Your task to perform on an android device: refresh tabs in the chrome app Image 0: 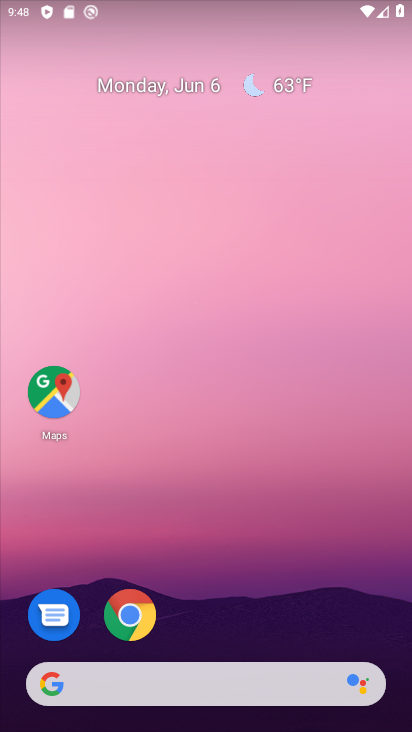
Step 0: click (132, 610)
Your task to perform on an android device: refresh tabs in the chrome app Image 1: 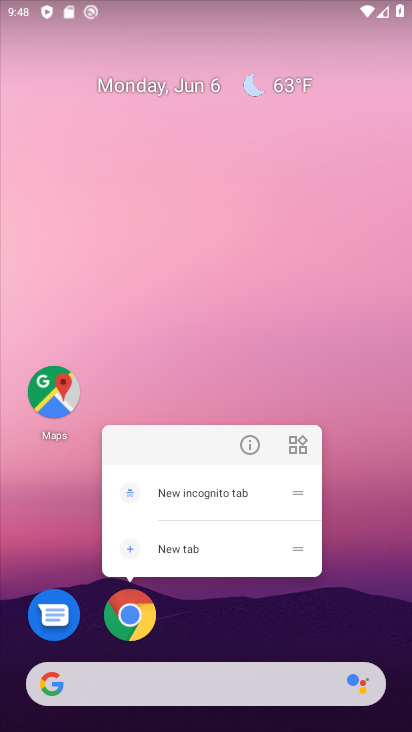
Step 1: click (128, 611)
Your task to perform on an android device: refresh tabs in the chrome app Image 2: 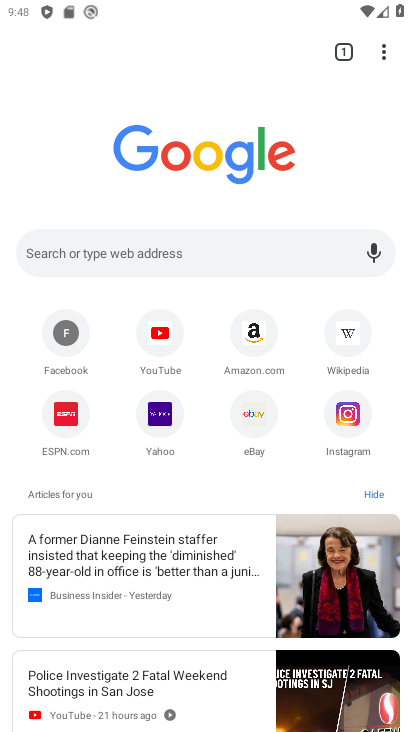
Step 2: click (382, 49)
Your task to perform on an android device: refresh tabs in the chrome app Image 3: 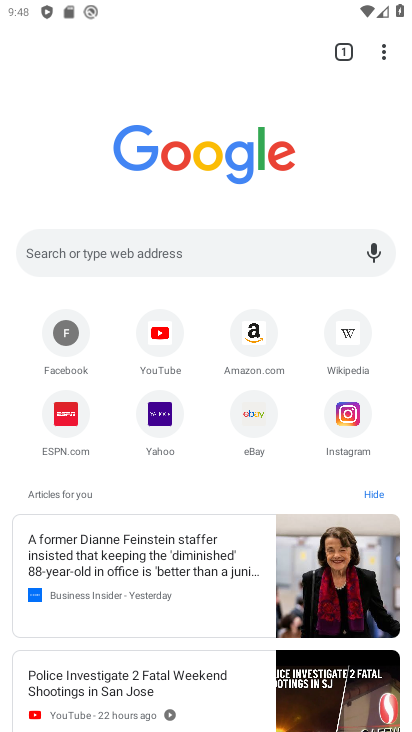
Step 3: task complete